Your task to perform on an android device: Search for "usb-b" on newegg.com, select the first entry, and add it to the cart. Image 0: 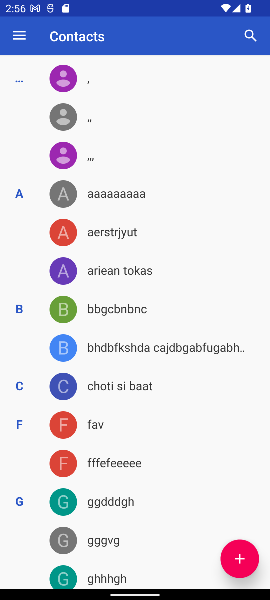
Step 0: press home button
Your task to perform on an android device: Search for "usb-b" on newegg.com, select the first entry, and add it to the cart. Image 1: 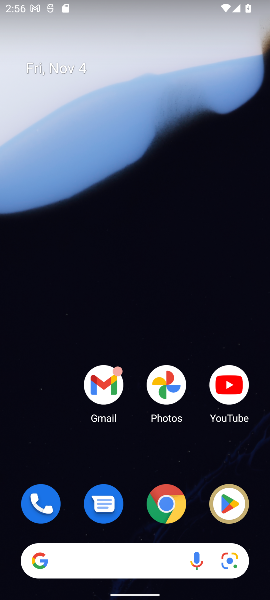
Step 1: click (165, 505)
Your task to perform on an android device: Search for "usb-b" on newegg.com, select the first entry, and add it to the cart. Image 2: 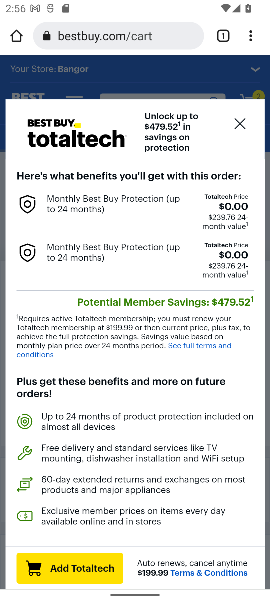
Step 2: click (89, 32)
Your task to perform on an android device: Search for "usb-b" on newegg.com, select the first entry, and add it to the cart. Image 3: 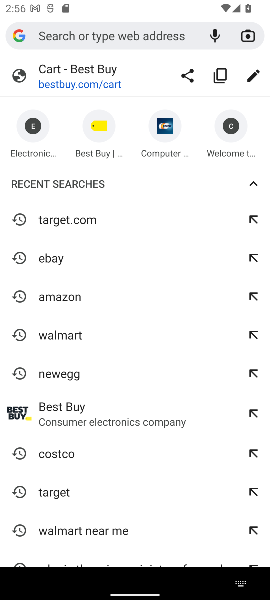
Step 3: type "newegg.com"
Your task to perform on an android device: Search for "usb-b" on newegg.com, select the first entry, and add it to the cart. Image 4: 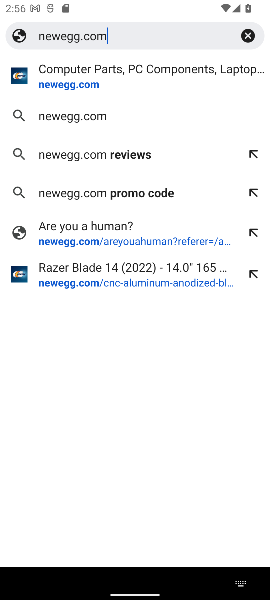
Step 4: click (67, 114)
Your task to perform on an android device: Search for "usb-b" on newegg.com, select the first entry, and add it to the cart. Image 5: 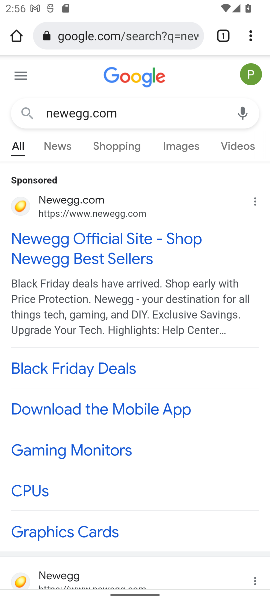
Step 5: drag from (123, 434) to (144, 183)
Your task to perform on an android device: Search for "usb-b" on newegg.com, select the first entry, and add it to the cart. Image 6: 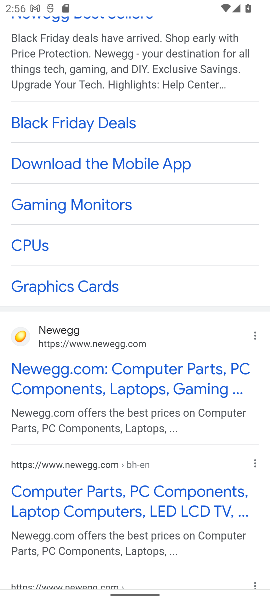
Step 6: click (62, 347)
Your task to perform on an android device: Search for "usb-b" on newegg.com, select the first entry, and add it to the cart. Image 7: 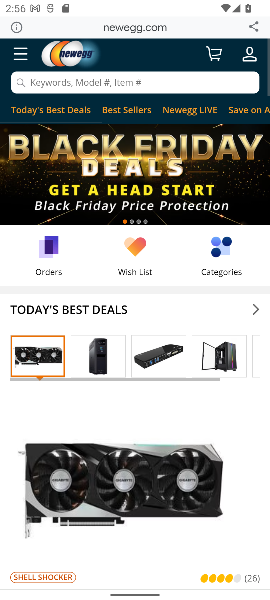
Step 7: click (123, 80)
Your task to perform on an android device: Search for "usb-b" on newegg.com, select the first entry, and add it to the cart. Image 8: 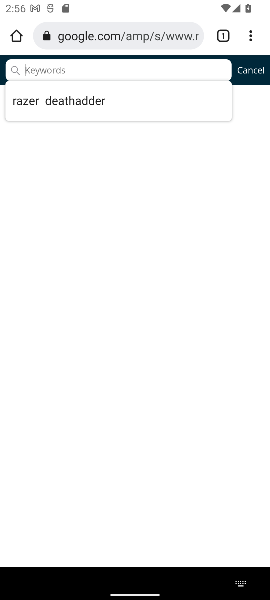
Step 8: type "usb-b"
Your task to perform on an android device: Search for "usb-b" on newegg.com, select the first entry, and add it to the cart. Image 9: 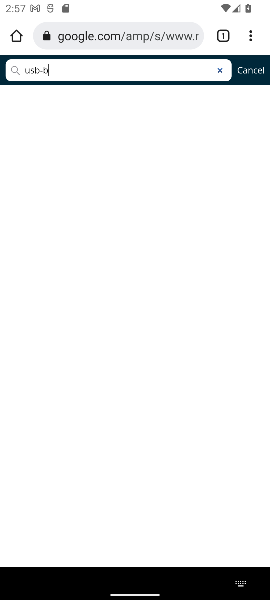
Step 9: click (20, 71)
Your task to perform on an android device: Search for "usb-b" on newegg.com, select the first entry, and add it to the cart. Image 10: 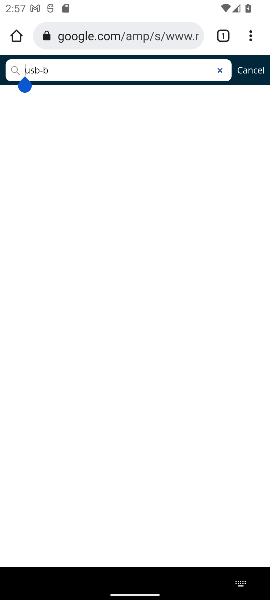
Step 10: task complete